Your task to perform on an android device: Open battery settings Image 0: 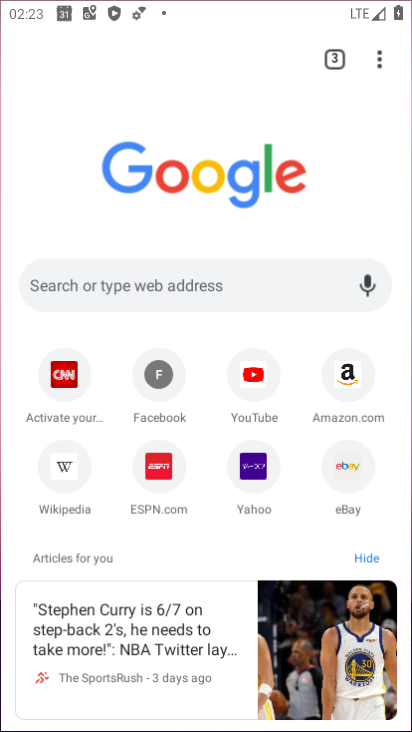
Step 0: drag from (215, 628) to (236, 2)
Your task to perform on an android device: Open battery settings Image 1: 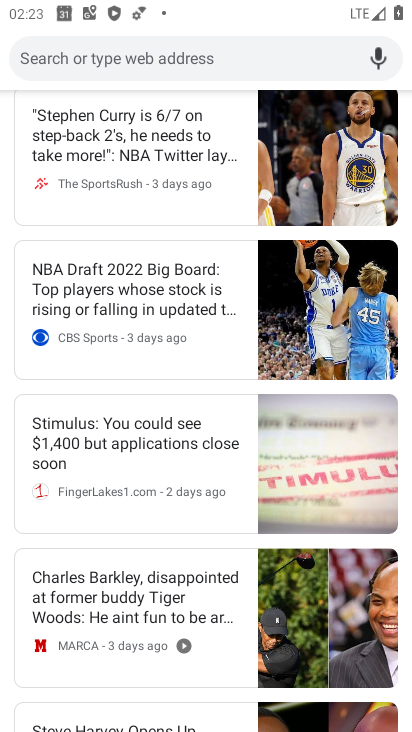
Step 1: press home button
Your task to perform on an android device: Open battery settings Image 2: 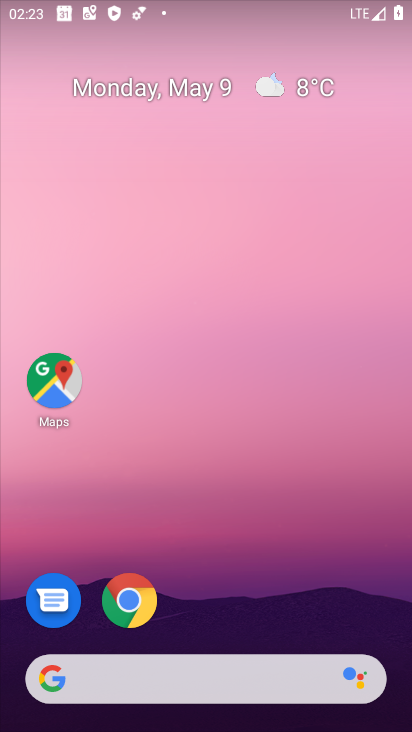
Step 2: drag from (217, 417) to (218, 40)
Your task to perform on an android device: Open battery settings Image 3: 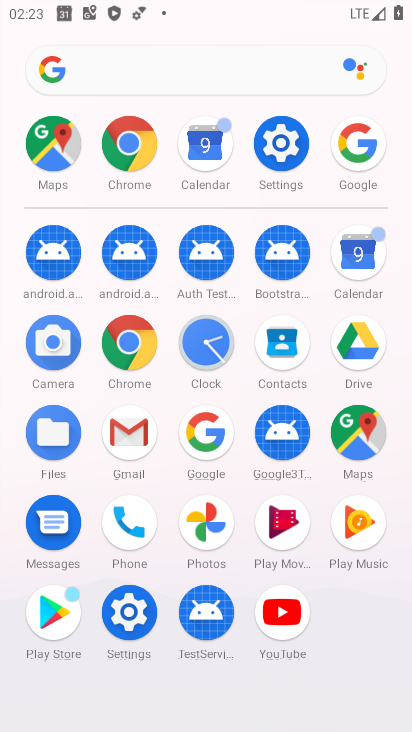
Step 3: click (129, 609)
Your task to perform on an android device: Open battery settings Image 4: 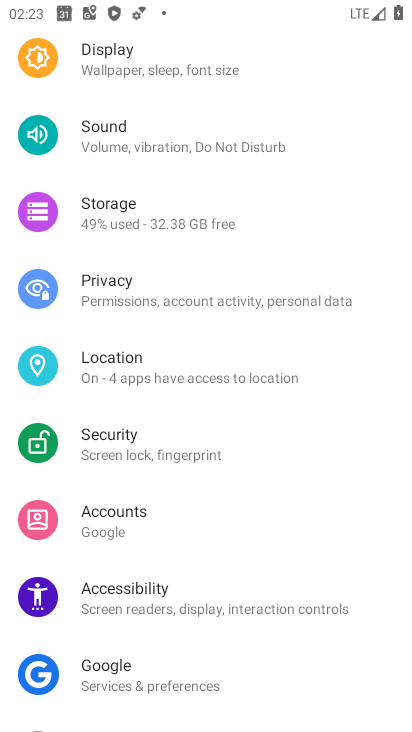
Step 4: drag from (131, 107) to (158, 449)
Your task to perform on an android device: Open battery settings Image 5: 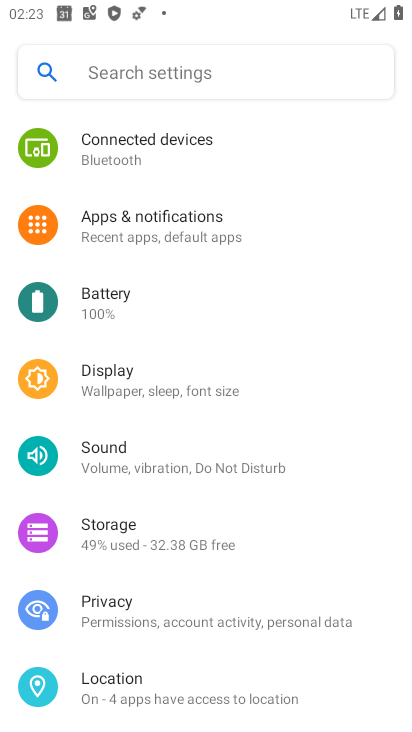
Step 5: click (135, 296)
Your task to perform on an android device: Open battery settings Image 6: 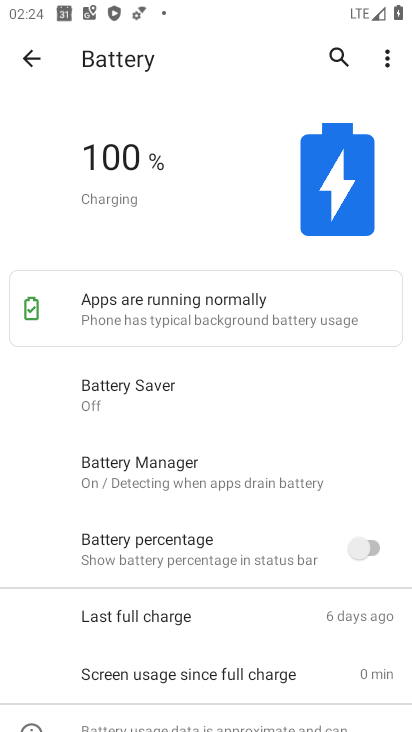
Step 6: task complete